Your task to perform on an android device: turn pop-ups on in chrome Image 0: 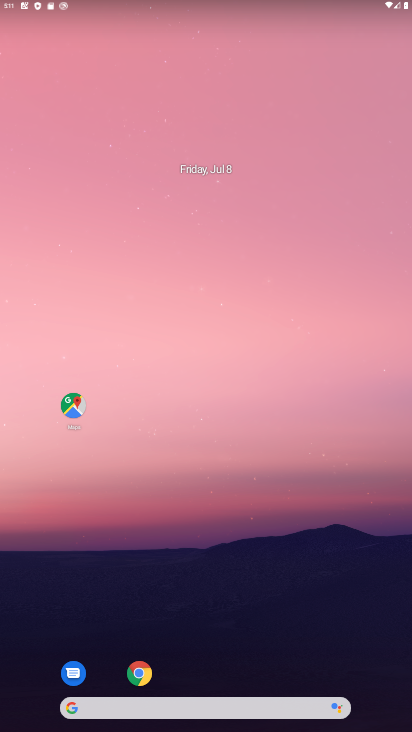
Step 0: click (140, 671)
Your task to perform on an android device: turn pop-ups on in chrome Image 1: 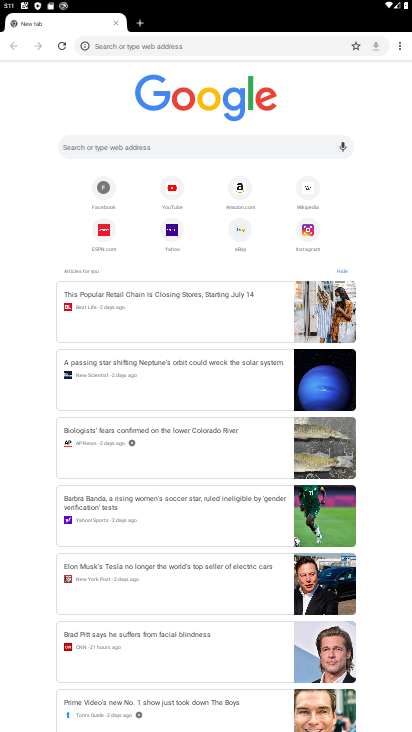
Step 1: click (399, 44)
Your task to perform on an android device: turn pop-ups on in chrome Image 2: 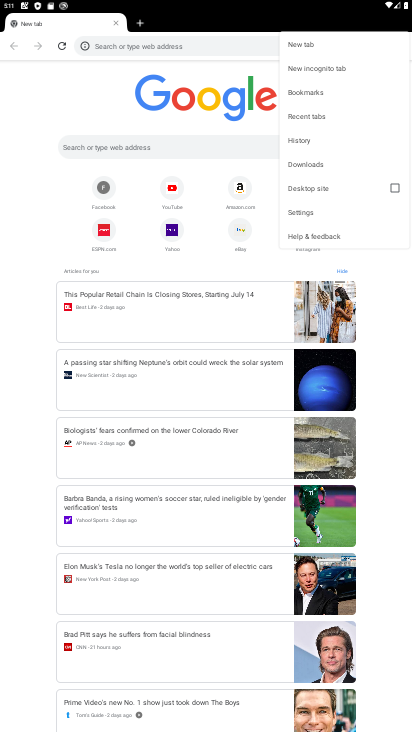
Step 2: click (299, 206)
Your task to perform on an android device: turn pop-ups on in chrome Image 3: 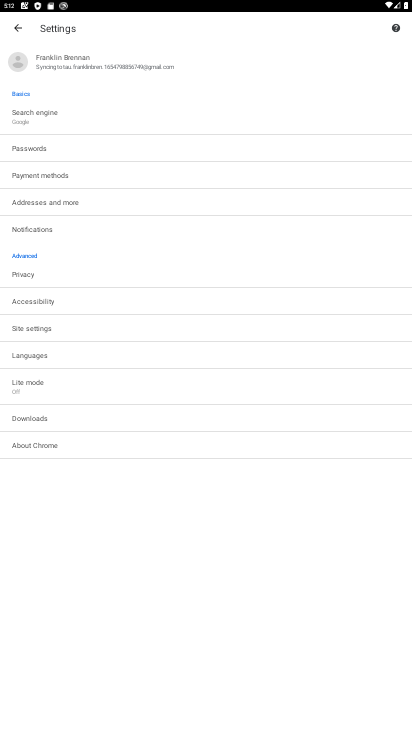
Step 3: click (64, 326)
Your task to perform on an android device: turn pop-ups on in chrome Image 4: 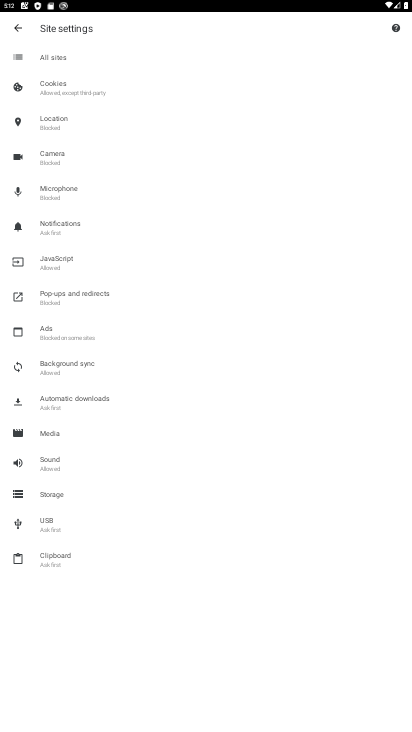
Step 4: click (83, 295)
Your task to perform on an android device: turn pop-ups on in chrome Image 5: 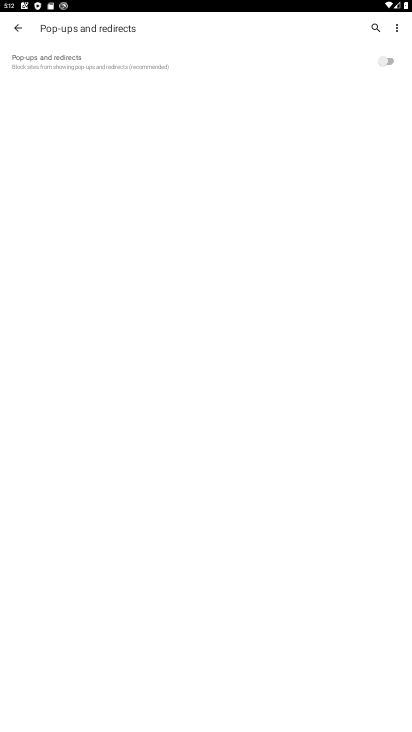
Step 5: click (387, 63)
Your task to perform on an android device: turn pop-ups on in chrome Image 6: 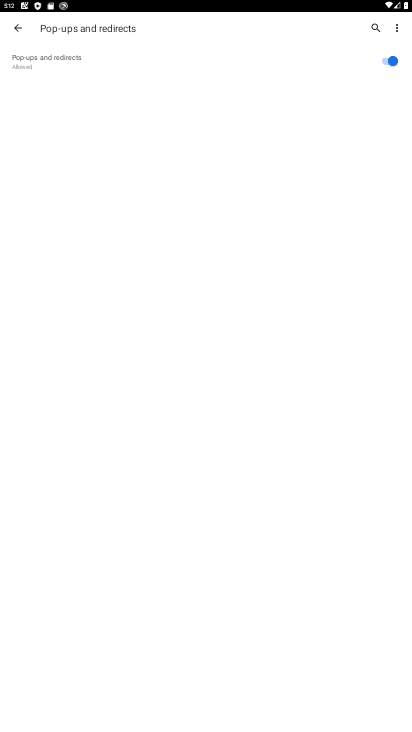
Step 6: task complete